Your task to perform on an android device: Check the weather Image 0: 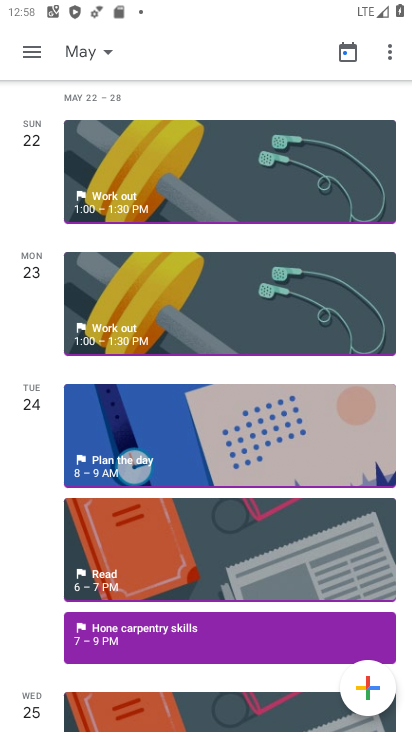
Step 0: press home button
Your task to perform on an android device: Check the weather Image 1: 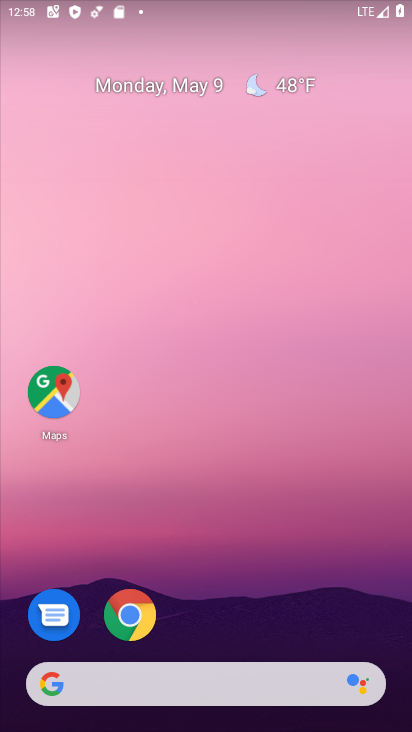
Step 1: click (293, 87)
Your task to perform on an android device: Check the weather Image 2: 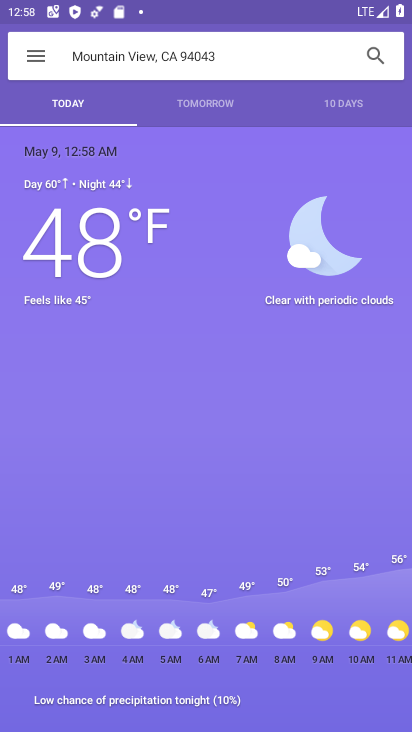
Step 2: task complete